Your task to perform on an android device: find photos in the google photos app Image 0: 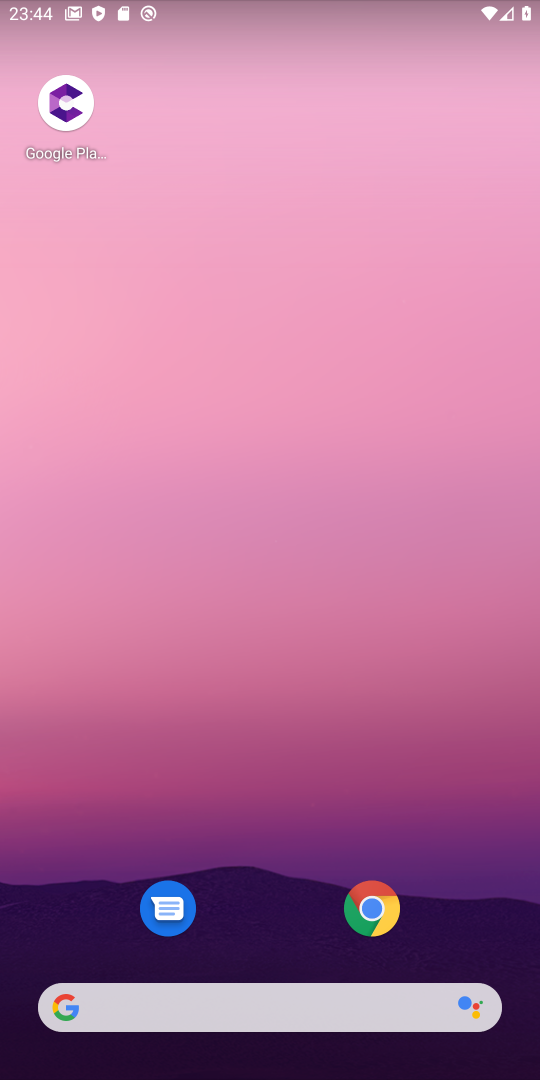
Step 0: press back button
Your task to perform on an android device: find photos in the google photos app Image 1: 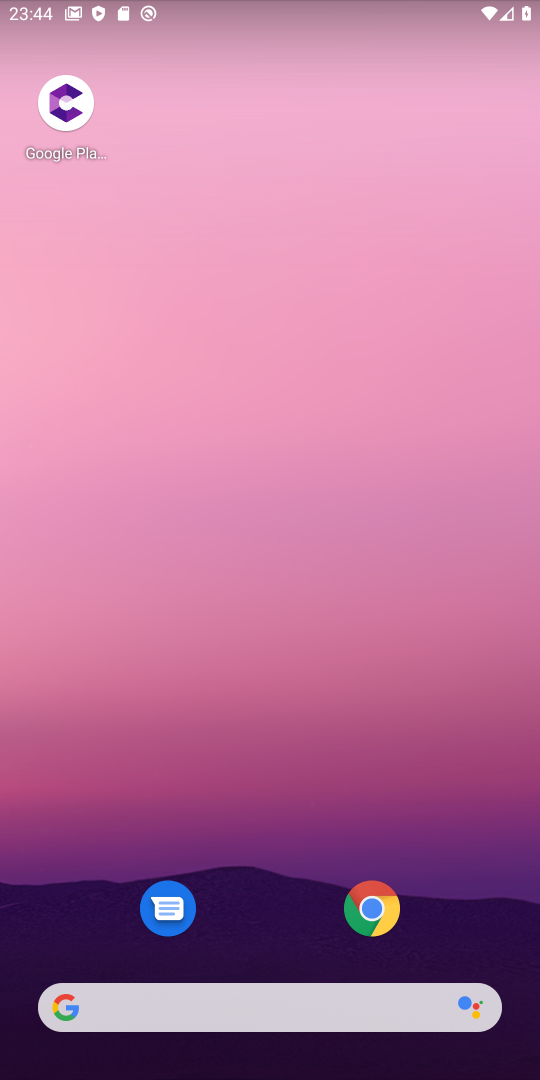
Step 1: drag from (493, 921) to (315, 81)
Your task to perform on an android device: find photos in the google photos app Image 2: 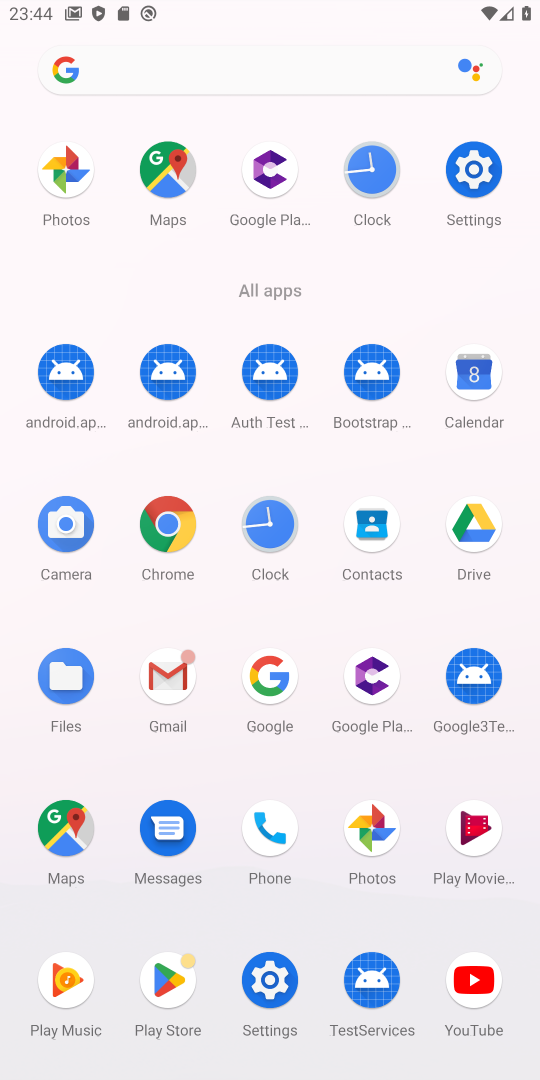
Step 2: click (64, 173)
Your task to perform on an android device: find photos in the google photos app Image 3: 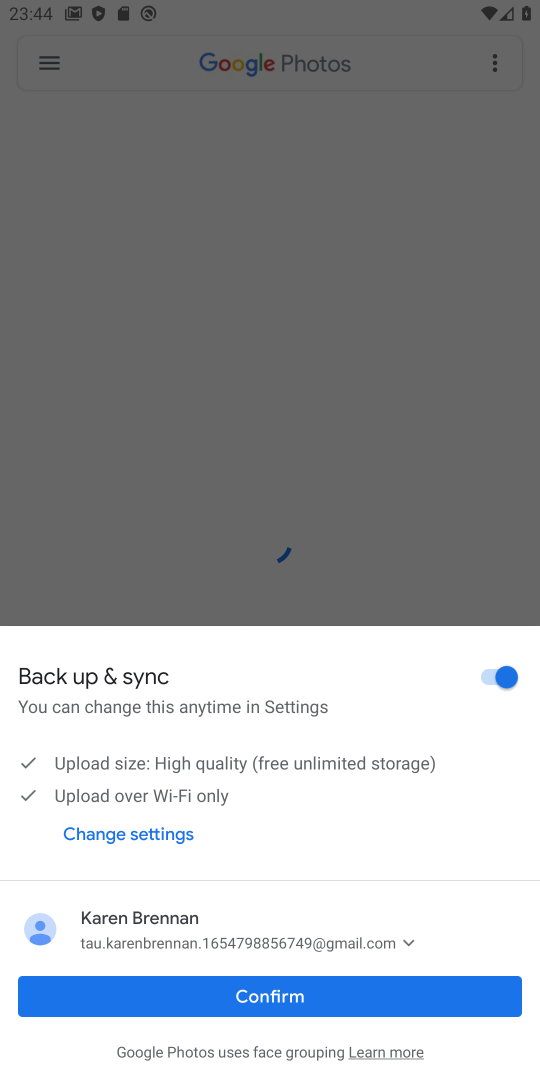
Step 3: click (296, 998)
Your task to perform on an android device: find photos in the google photos app Image 4: 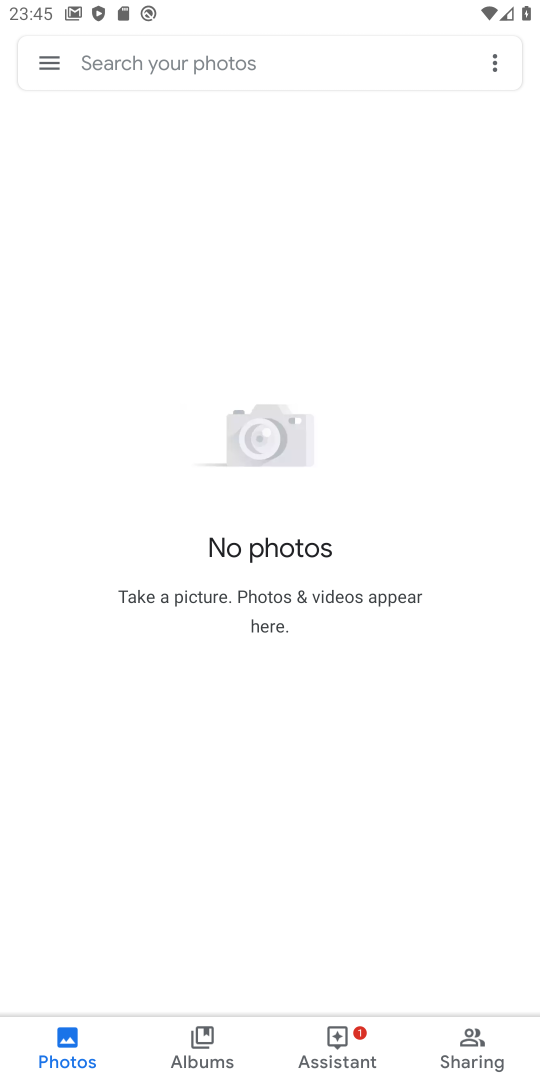
Step 4: task complete